Your task to perform on an android device: What's the news in Ecuador? Image 0: 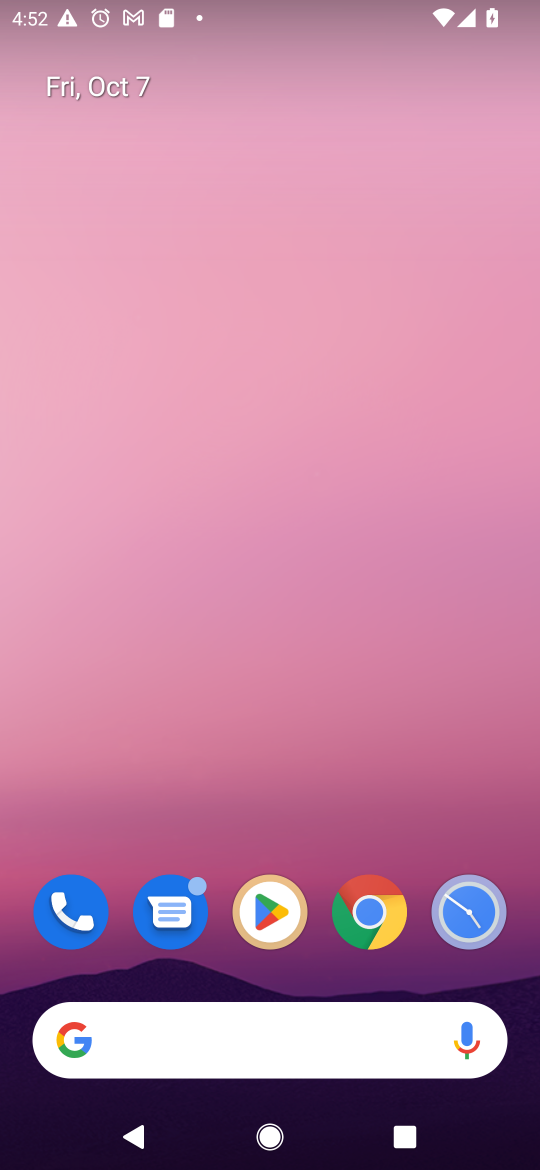
Step 0: drag from (347, 1057) to (389, 364)
Your task to perform on an android device: What's the news in Ecuador? Image 1: 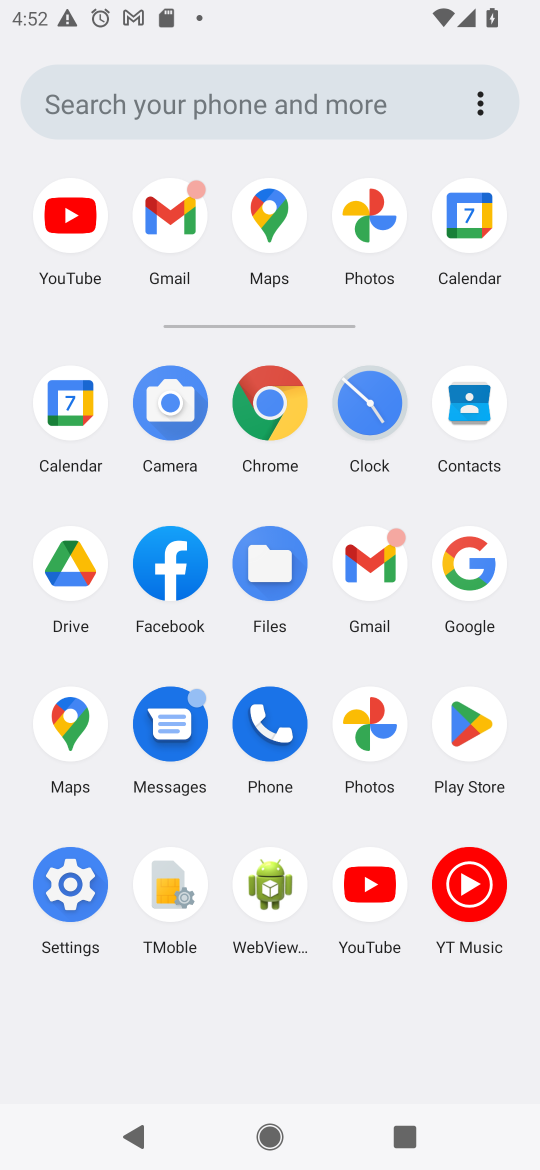
Step 1: click (469, 550)
Your task to perform on an android device: What's the news in Ecuador? Image 2: 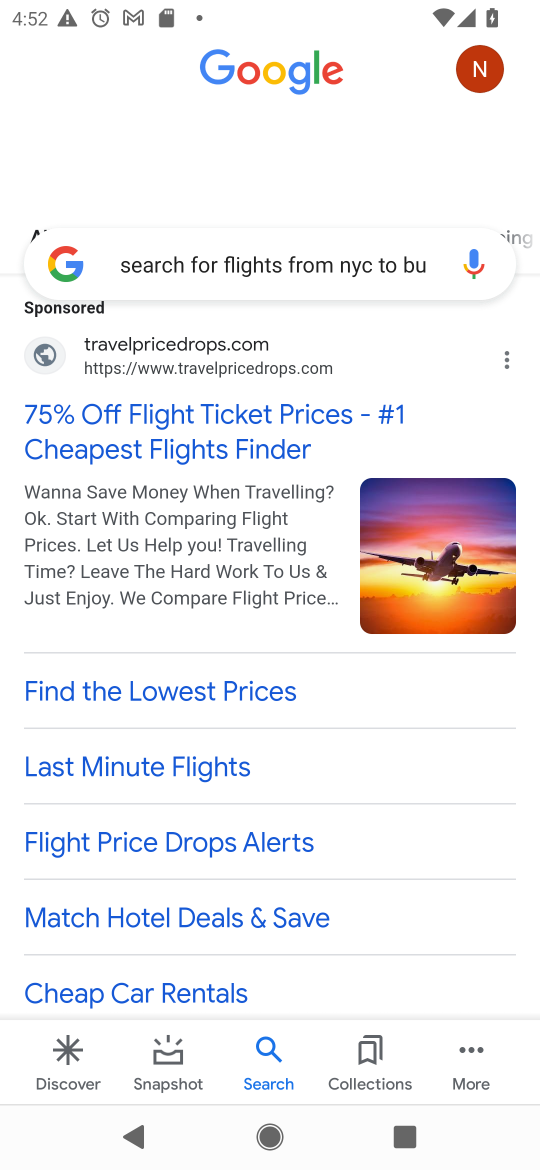
Step 2: click (214, 260)
Your task to perform on an android device: What's the news in Ecuador? Image 3: 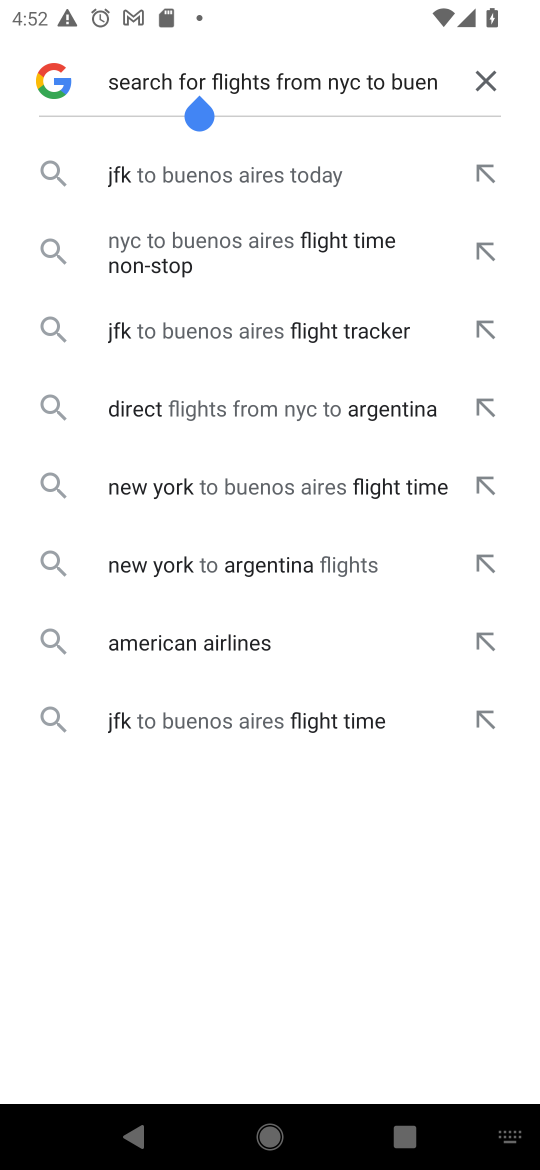
Step 3: click (489, 77)
Your task to perform on an android device: What's the news in Ecuador? Image 4: 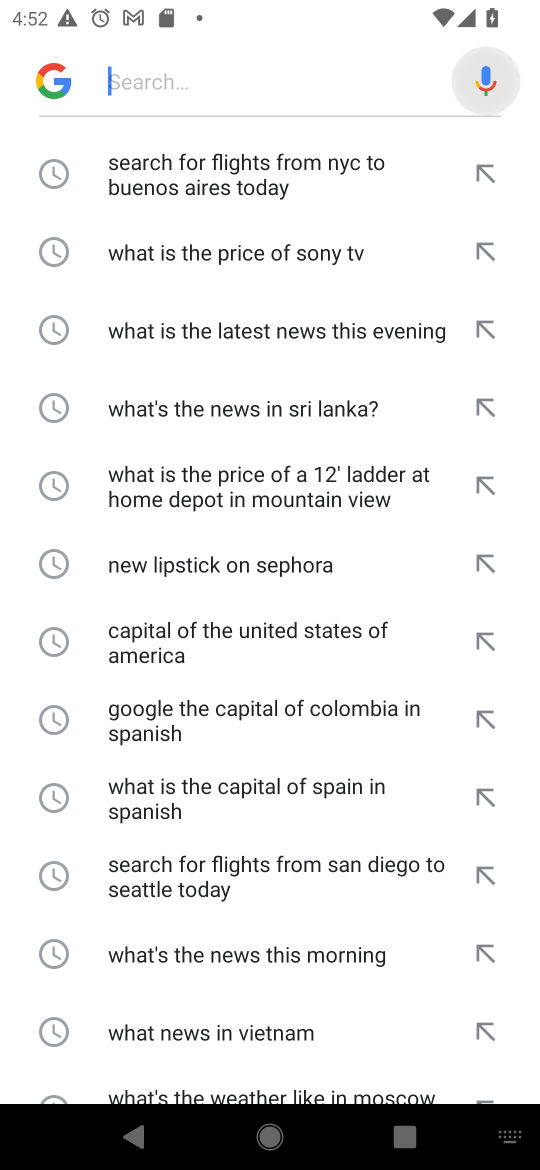
Step 4: drag from (71, 1166) to (396, 1116)
Your task to perform on an android device: What's the news in Ecuador? Image 5: 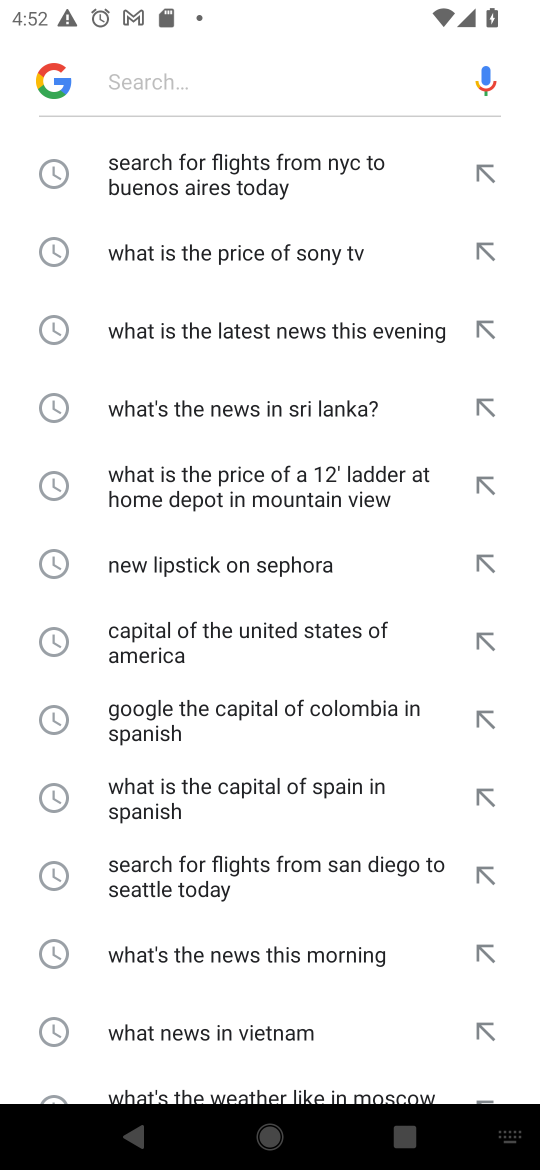
Step 5: click (308, 94)
Your task to perform on an android device: What's the news in Ecuador? Image 6: 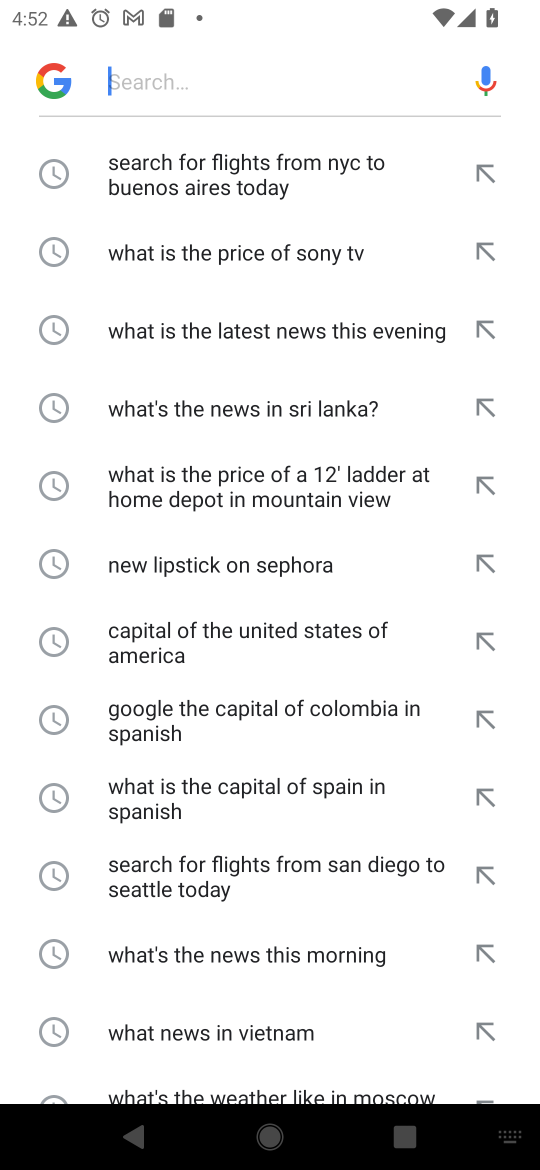
Step 6: click (308, 94)
Your task to perform on an android device: What's the news in Ecuador? Image 7: 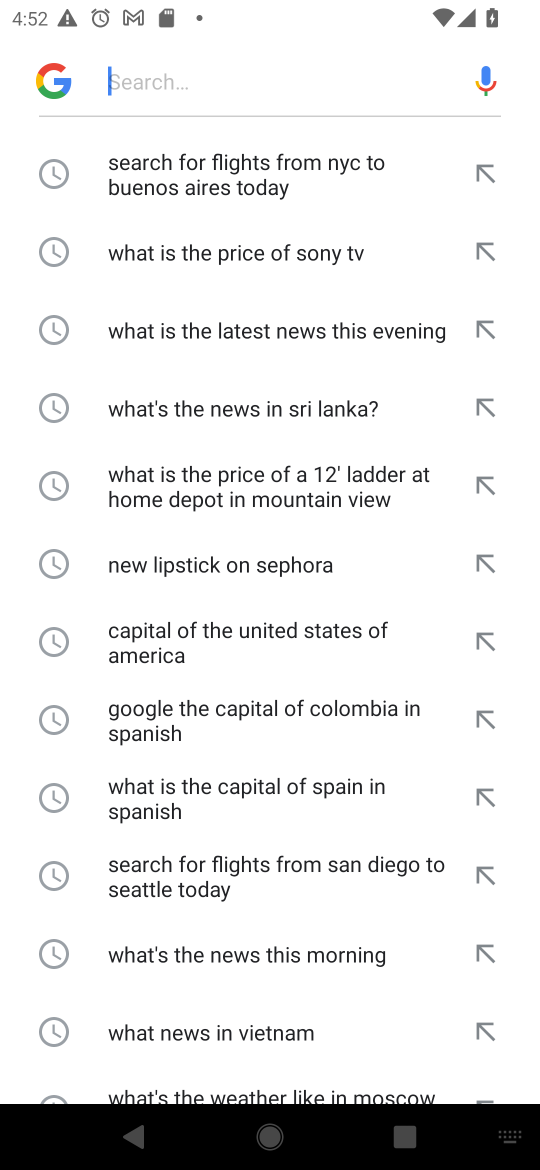
Step 7: type "What's the news in Ecuador? "
Your task to perform on an android device: What's the news in Ecuador? Image 8: 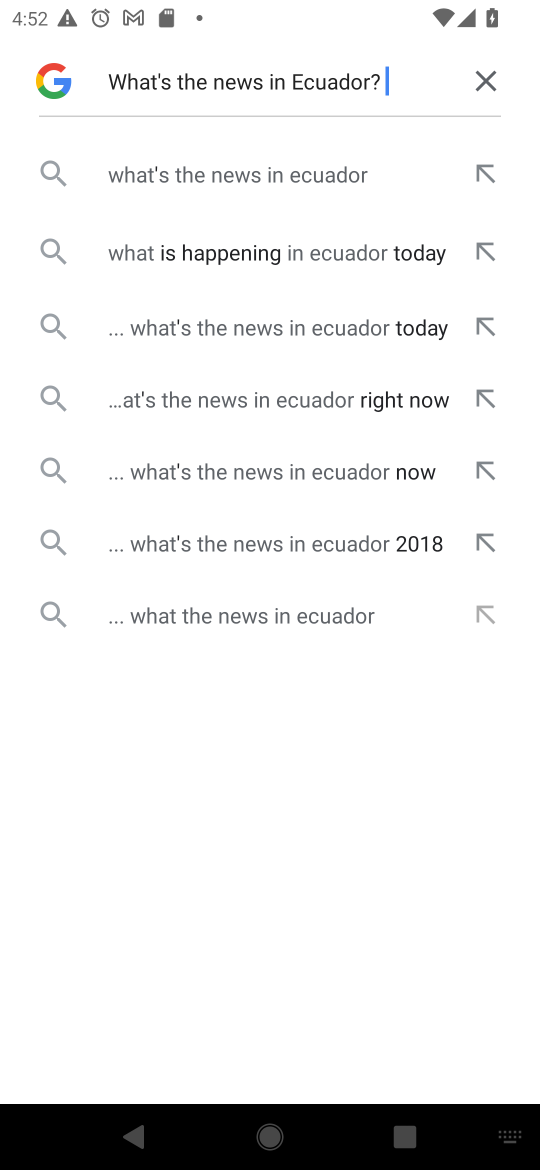
Step 8: click (269, 190)
Your task to perform on an android device: What's the news in Ecuador? Image 9: 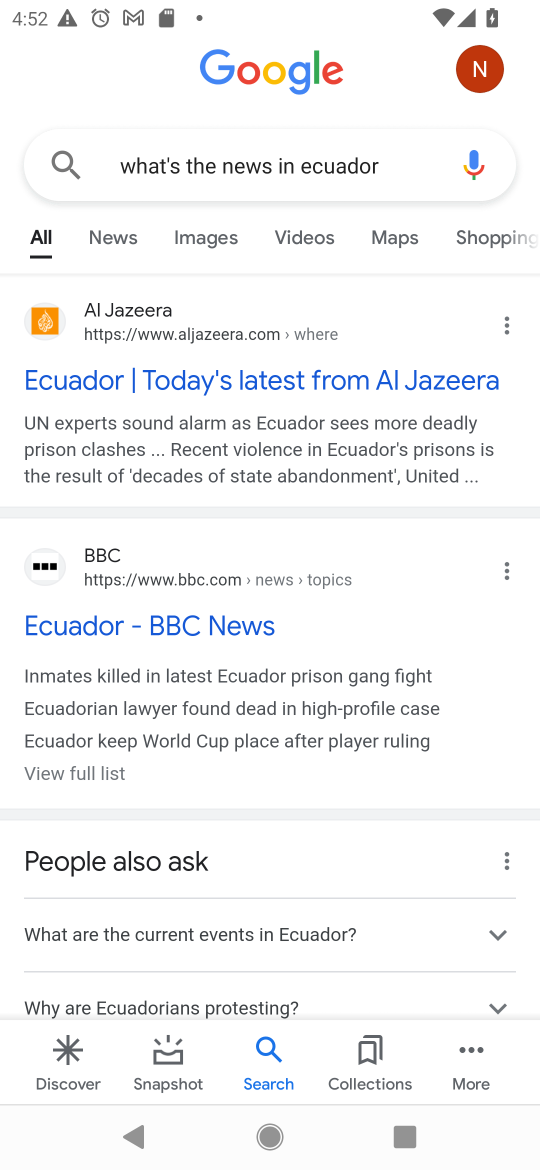
Step 9: click (218, 628)
Your task to perform on an android device: What's the news in Ecuador? Image 10: 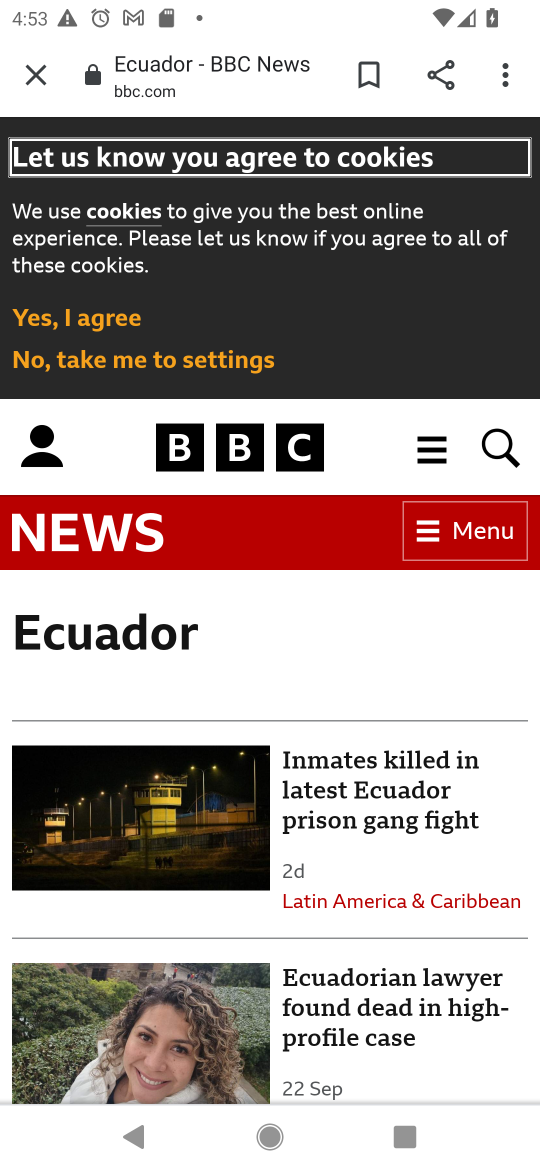
Step 10: task complete